Your task to perform on an android device: Open the calendar app, open the side menu, and click the "Day" option Image 0: 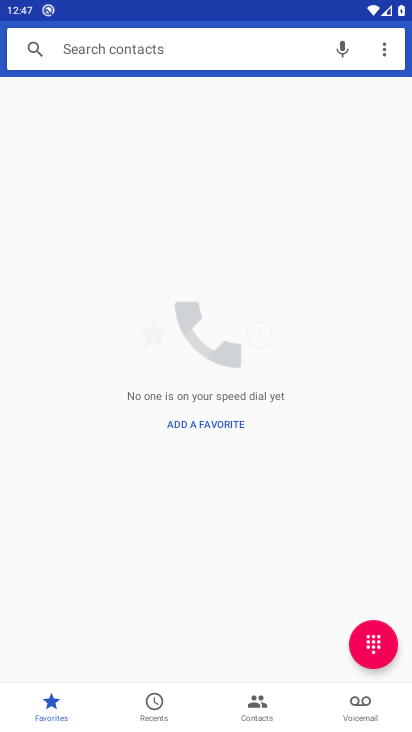
Step 0: press home button
Your task to perform on an android device: Open the calendar app, open the side menu, and click the "Day" option Image 1: 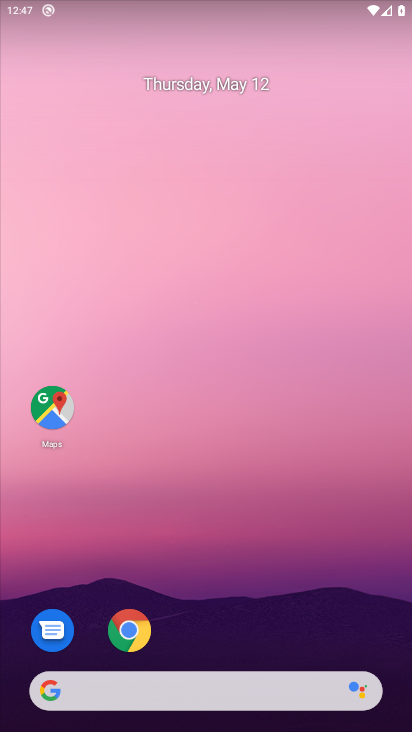
Step 1: drag from (291, 622) to (315, 112)
Your task to perform on an android device: Open the calendar app, open the side menu, and click the "Day" option Image 2: 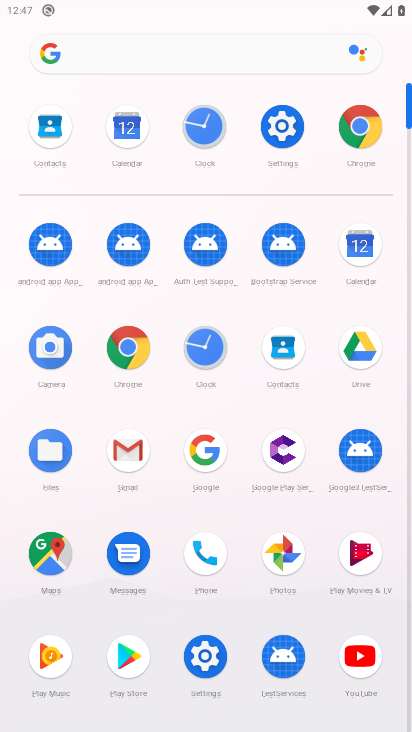
Step 2: click (133, 127)
Your task to perform on an android device: Open the calendar app, open the side menu, and click the "Day" option Image 3: 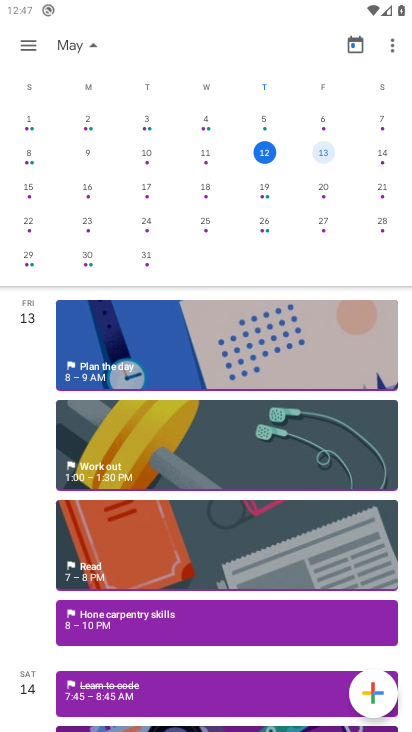
Step 3: click (23, 46)
Your task to perform on an android device: Open the calendar app, open the side menu, and click the "Day" option Image 4: 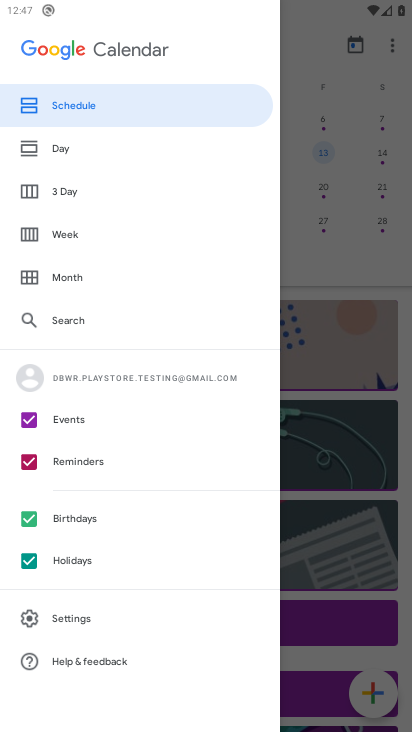
Step 4: click (54, 145)
Your task to perform on an android device: Open the calendar app, open the side menu, and click the "Day" option Image 5: 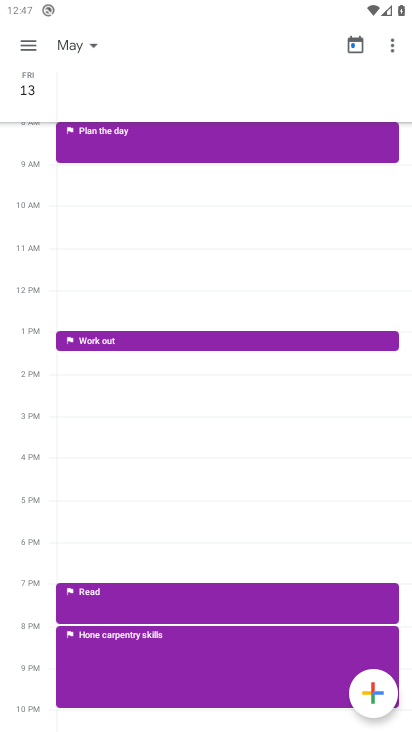
Step 5: task complete